Your task to perform on an android device: Open Youtube and go to "Your channel" Image 0: 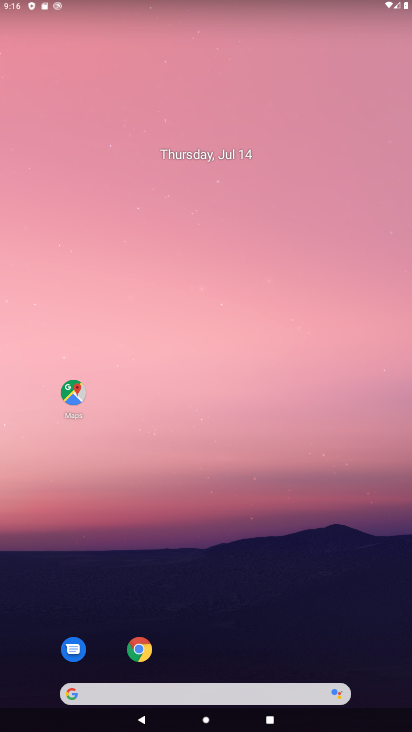
Step 0: drag from (168, 573) to (173, 335)
Your task to perform on an android device: Open Youtube and go to "Your channel" Image 1: 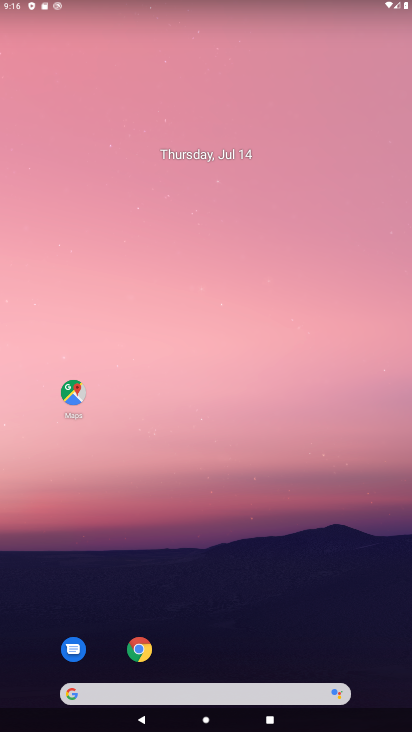
Step 1: drag from (180, 563) to (193, 39)
Your task to perform on an android device: Open Youtube and go to "Your channel" Image 2: 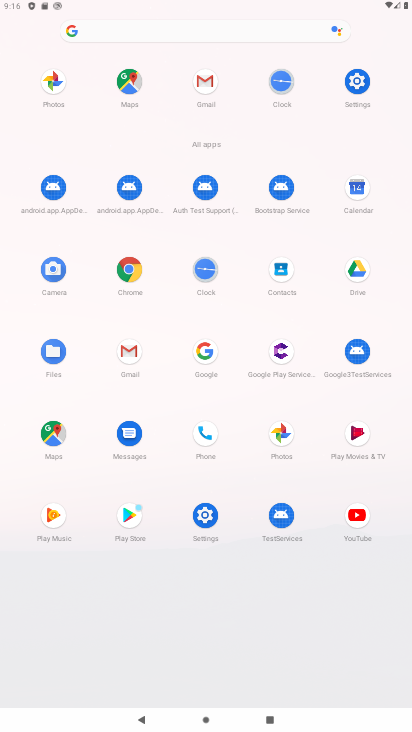
Step 2: click (356, 521)
Your task to perform on an android device: Open Youtube and go to "Your channel" Image 3: 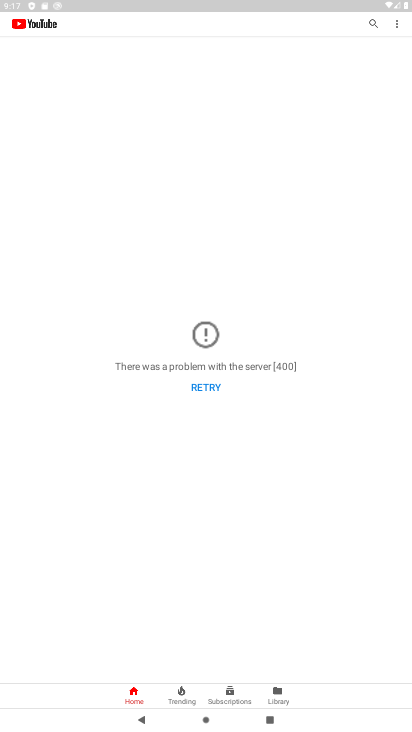
Step 3: task complete